Your task to perform on an android device: turn on javascript in the chrome app Image 0: 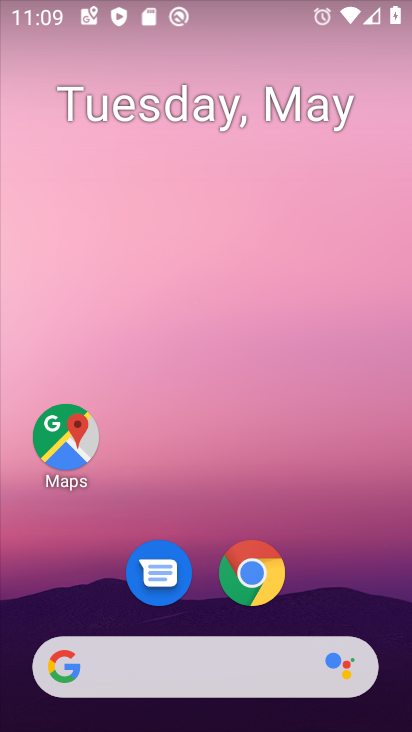
Step 0: drag from (309, 699) to (302, 187)
Your task to perform on an android device: turn on javascript in the chrome app Image 1: 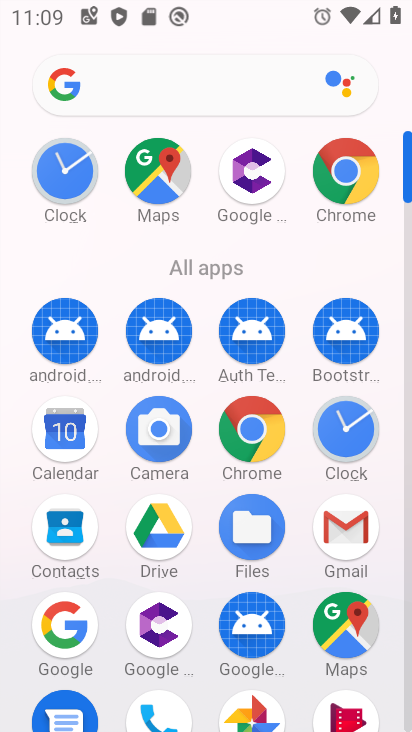
Step 1: click (344, 173)
Your task to perform on an android device: turn on javascript in the chrome app Image 2: 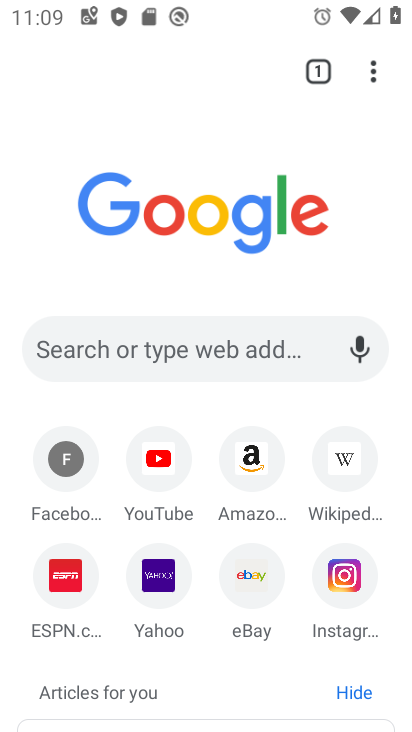
Step 2: click (372, 81)
Your task to perform on an android device: turn on javascript in the chrome app Image 3: 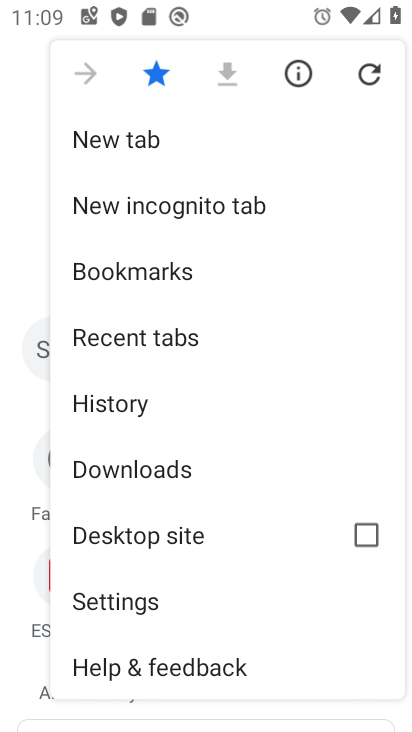
Step 3: click (139, 606)
Your task to perform on an android device: turn on javascript in the chrome app Image 4: 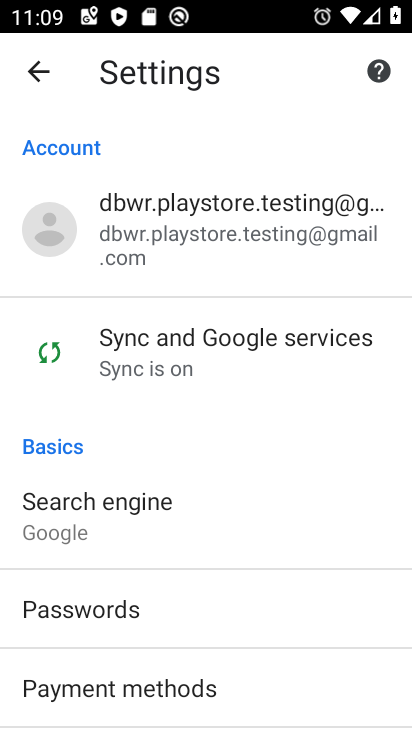
Step 4: drag from (139, 605) to (117, 196)
Your task to perform on an android device: turn on javascript in the chrome app Image 5: 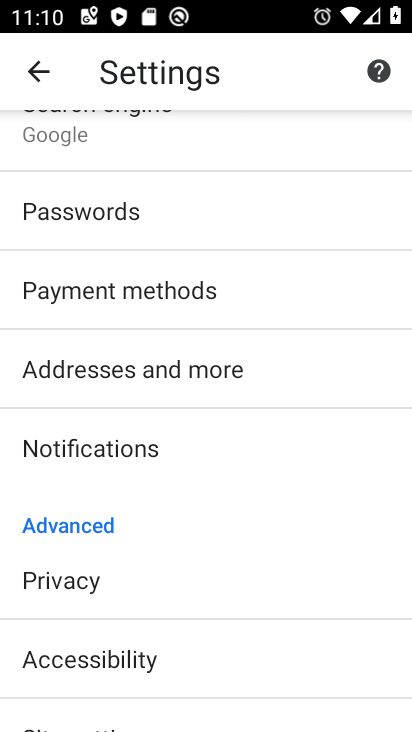
Step 5: drag from (124, 545) to (163, 353)
Your task to perform on an android device: turn on javascript in the chrome app Image 6: 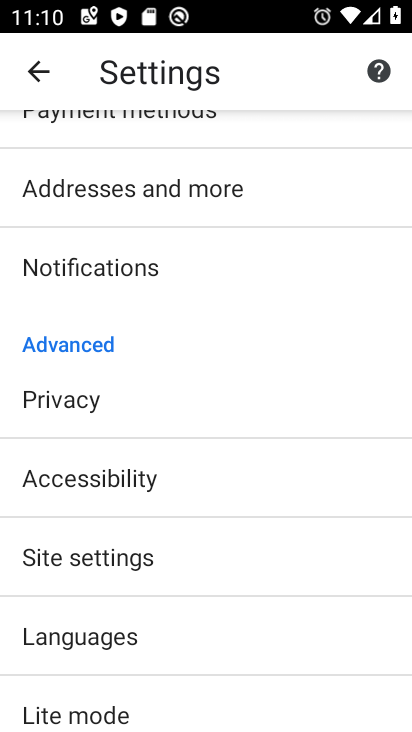
Step 6: click (105, 553)
Your task to perform on an android device: turn on javascript in the chrome app Image 7: 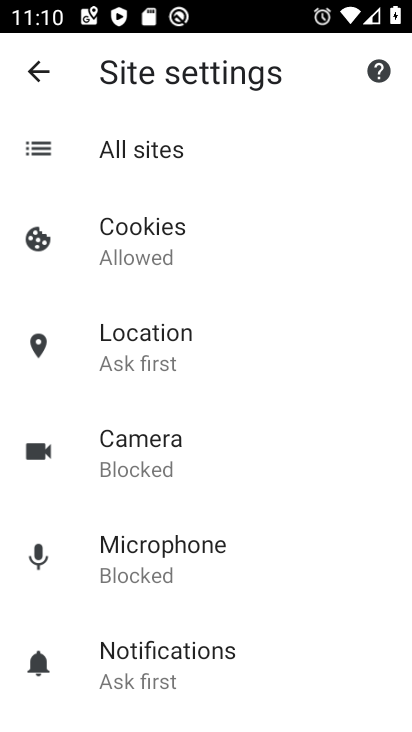
Step 7: drag from (163, 591) to (206, 351)
Your task to perform on an android device: turn on javascript in the chrome app Image 8: 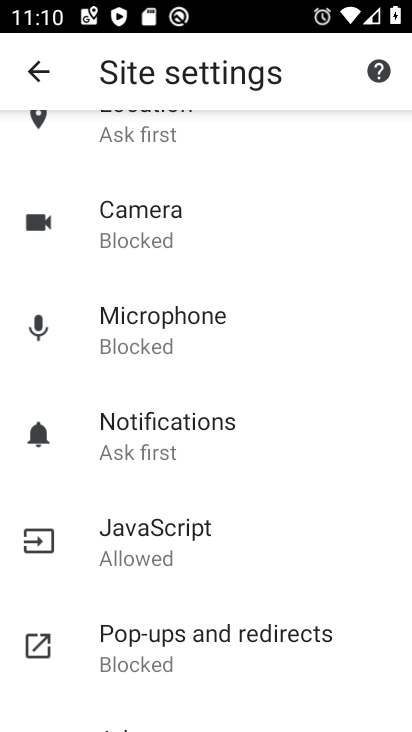
Step 8: click (169, 549)
Your task to perform on an android device: turn on javascript in the chrome app Image 9: 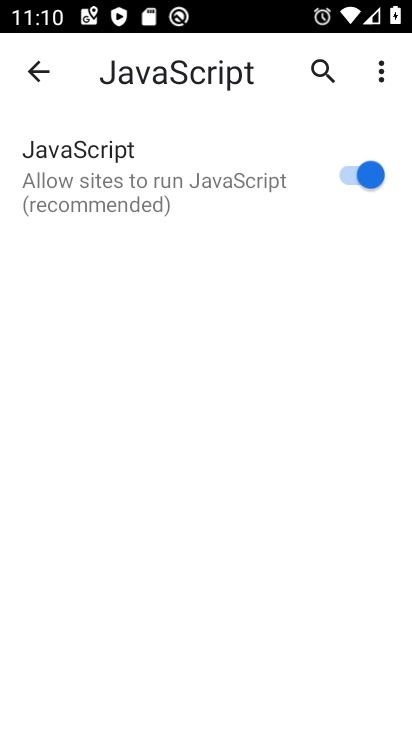
Step 9: click (361, 170)
Your task to perform on an android device: turn on javascript in the chrome app Image 10: 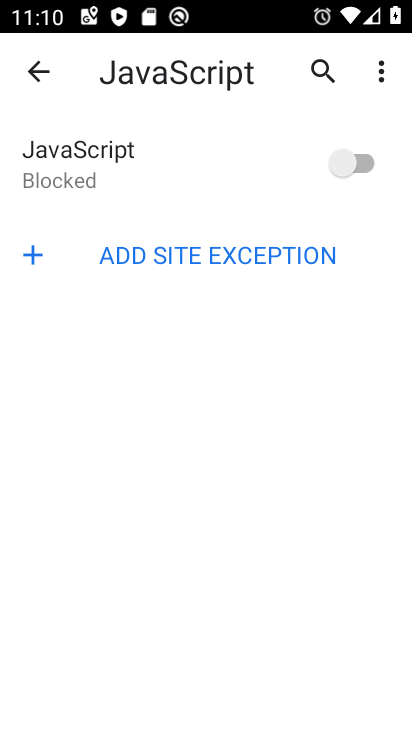
Step 10: click (352, 173)
Your task to perform on an android device: turn on javascript in the chrome app Image 11: 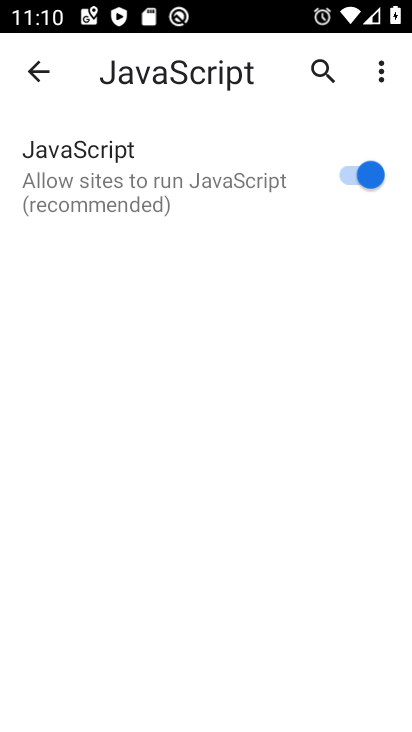
Step 11: task complete